Your task to perform on an android device: Search for pizza restaurants on Maps Image 0: 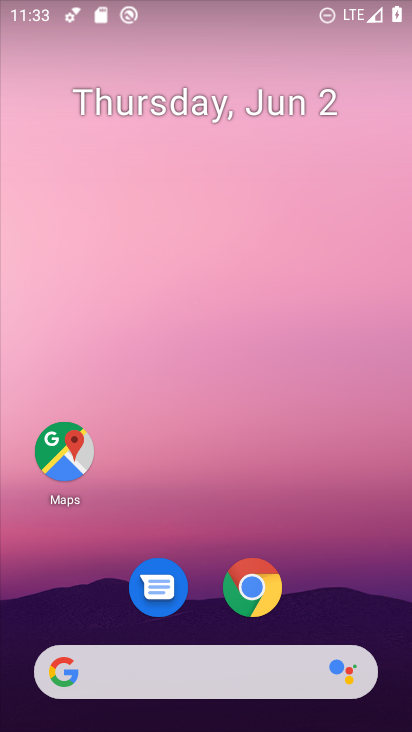
Step 0: click (72, 449)
Your task to perform on an android device: Search for pizza restaurants on Maps Image 1: 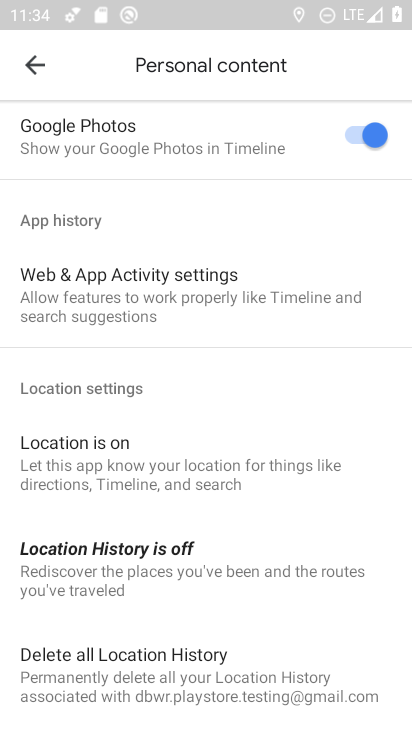
Step 1: click (27, 71)
Your task to perform on an android device: Search for pizza restaurants on Maps Image 2: 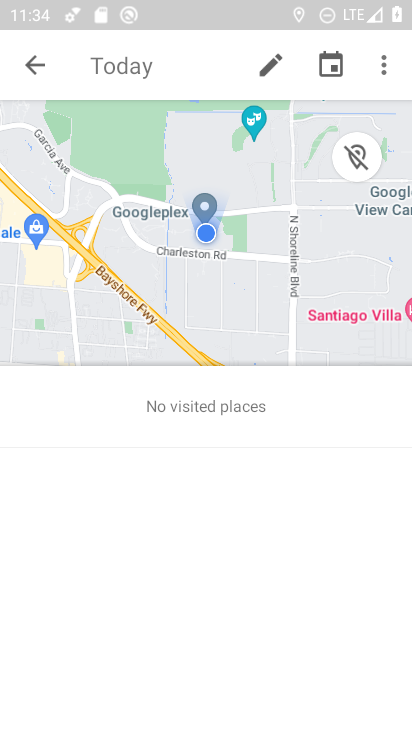
Step 2: click (27, 71)
Your task to perform on an android device: Search for pizza restaurants on Maps Image 3: 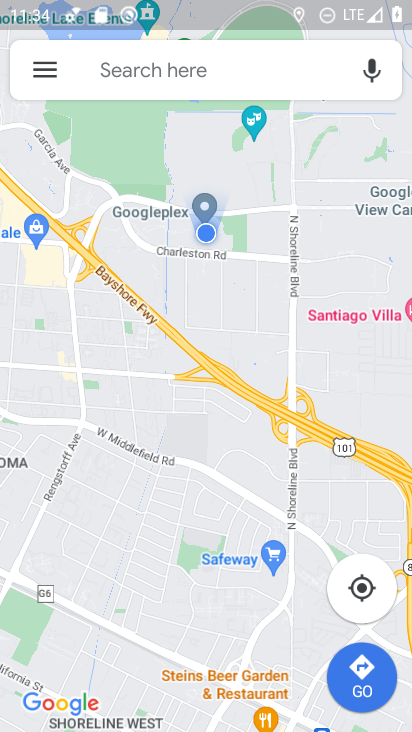
Step 3: click (185, 64)
Your task to perform on an android device: Search for pizza restaurants on Maps Image 4: 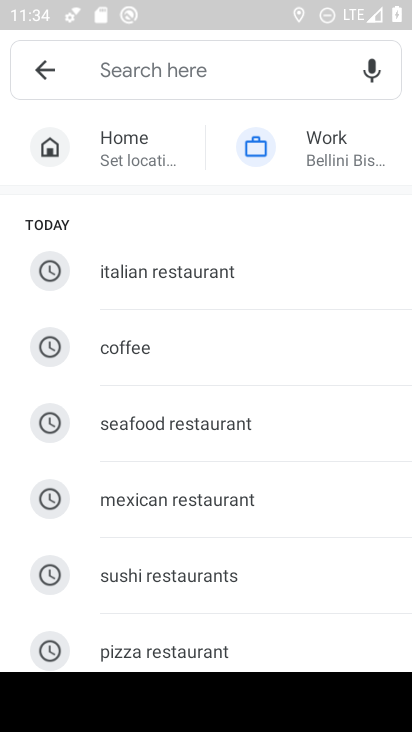
Step 4: click (244, 637)
Your task to perform on an android device: Search for pizza restaurants on Maps Image 5: 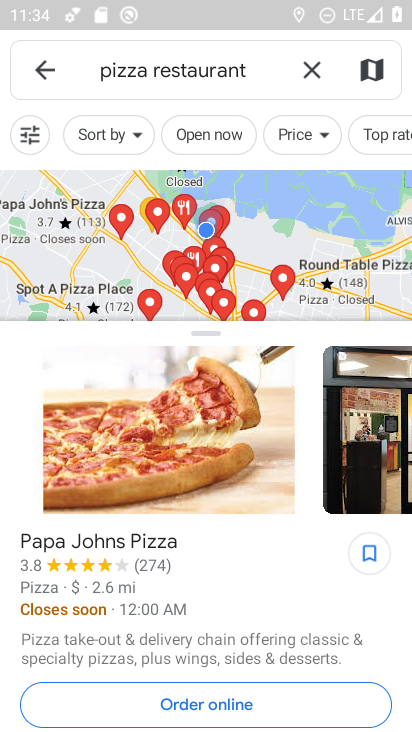
Step 5: task complete